Your task to perform on an android device: empty trash in google photos Image 0: 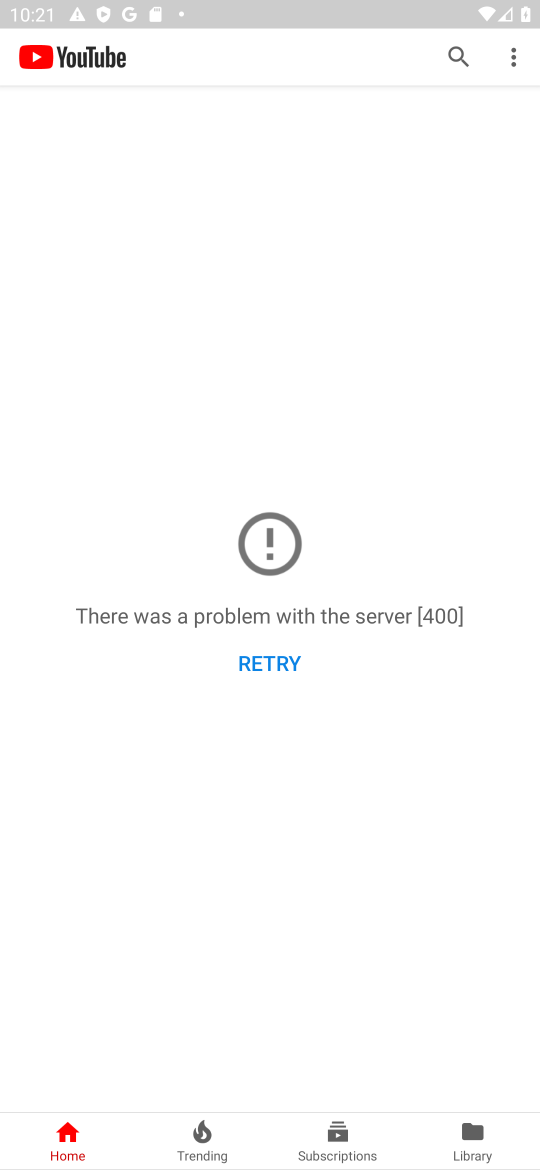
Step 0: press home button
Your task to perform on an android device: empty trash in google photos Image 1: 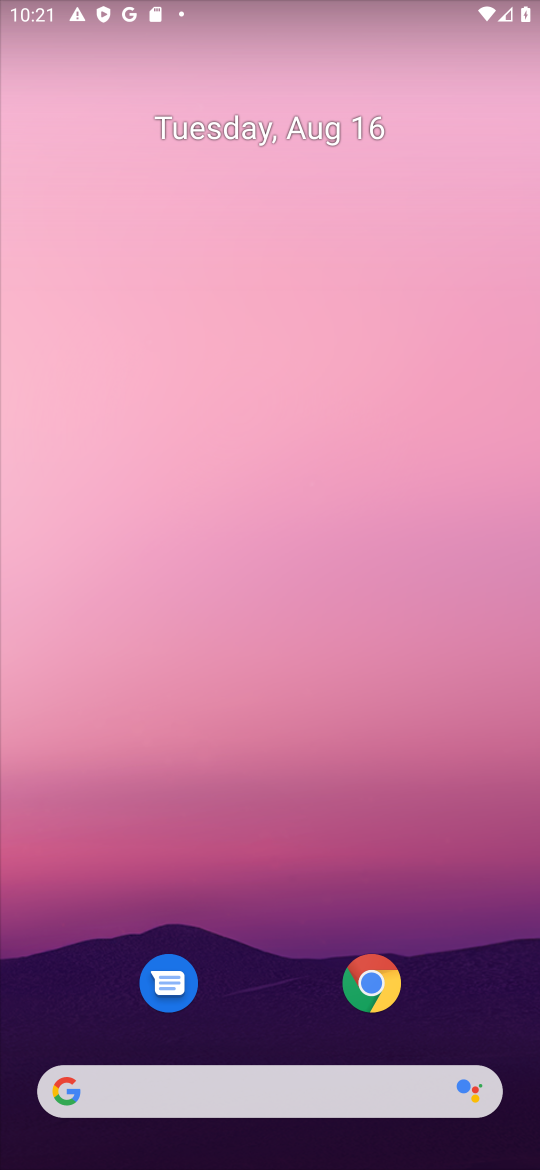
Step 1: drag from (301, 1080) to (262, 541)
Your task to perform on an android device: empty trash in google photos Image 2: 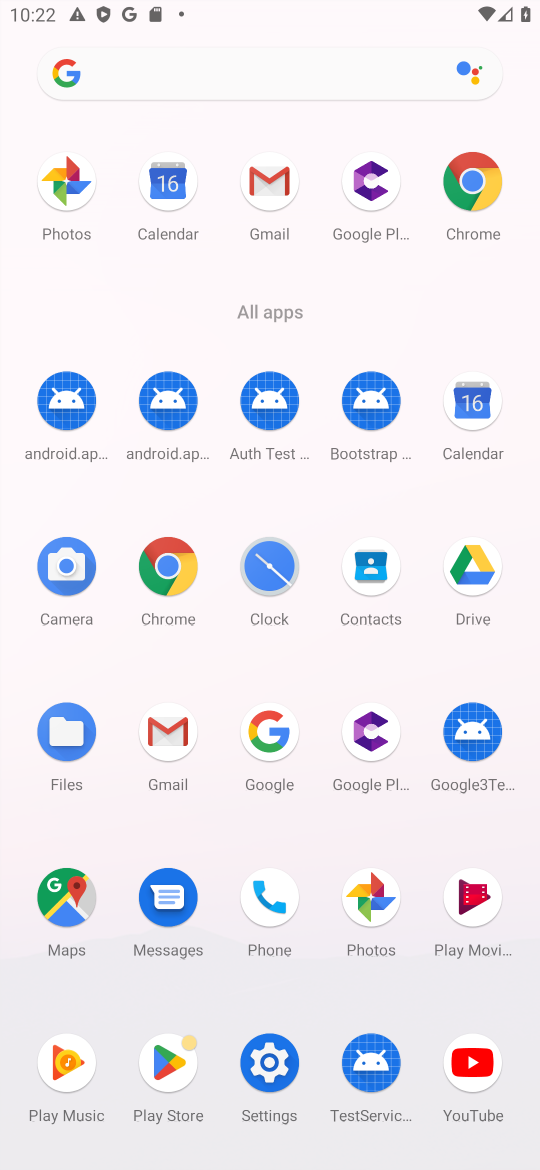
Step 2: click (358, 881)
Your task to perform on an android device: empty trash in google photos Image 3: 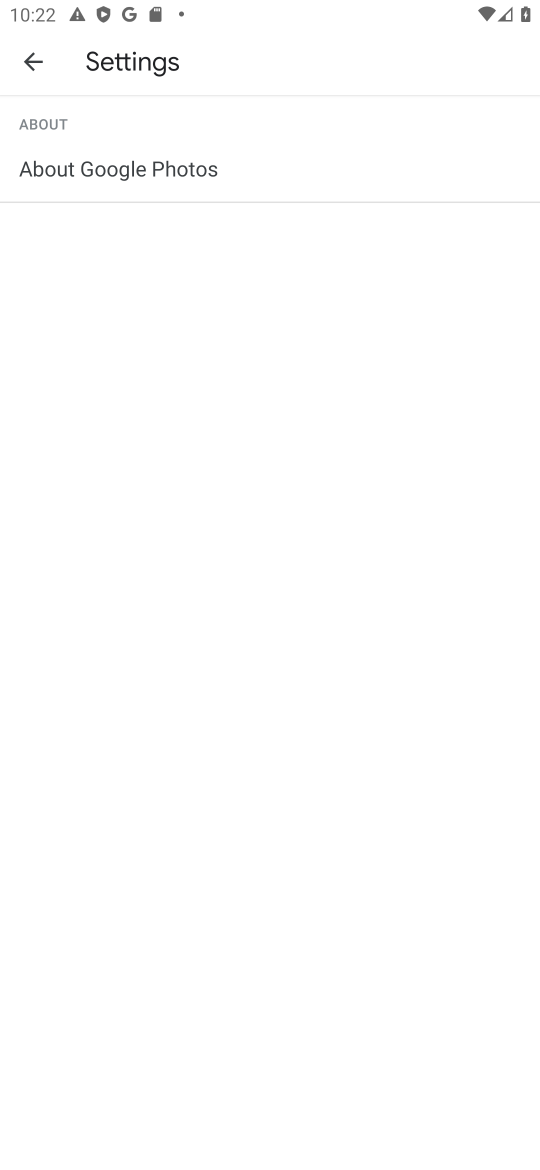
Step 3: click (19, 62)
Your task to perform on an android device: empty trash in google photos Image 4: 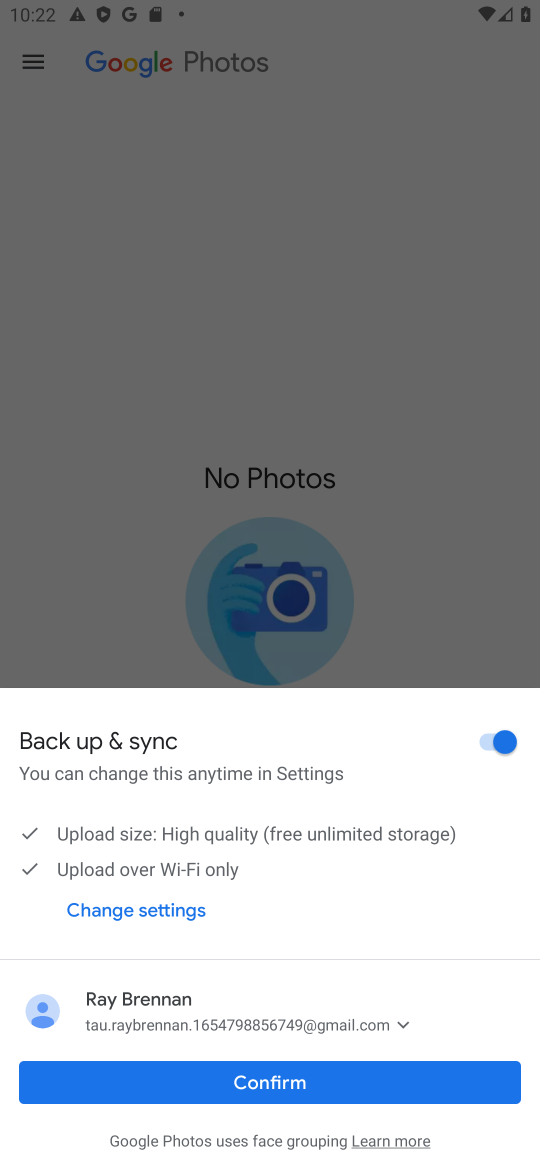
Step 4: click (167, 1088)
Your task to perform on an android device: empty trash in google photos Image 5: 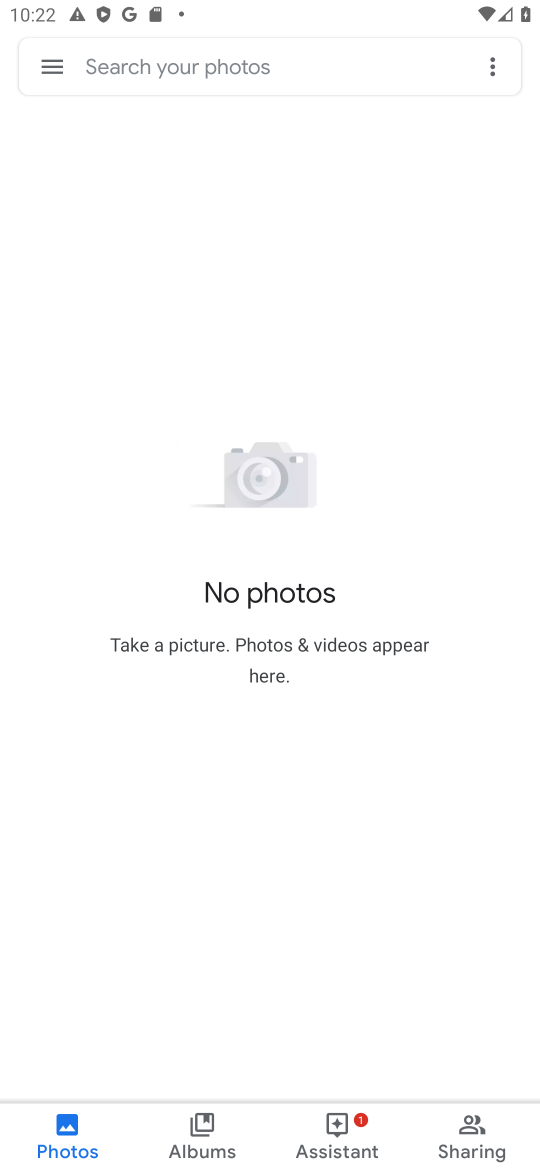
Step 5: click (49, 64)
Your task to perform on an android device: empty trash in google photos Image 6: 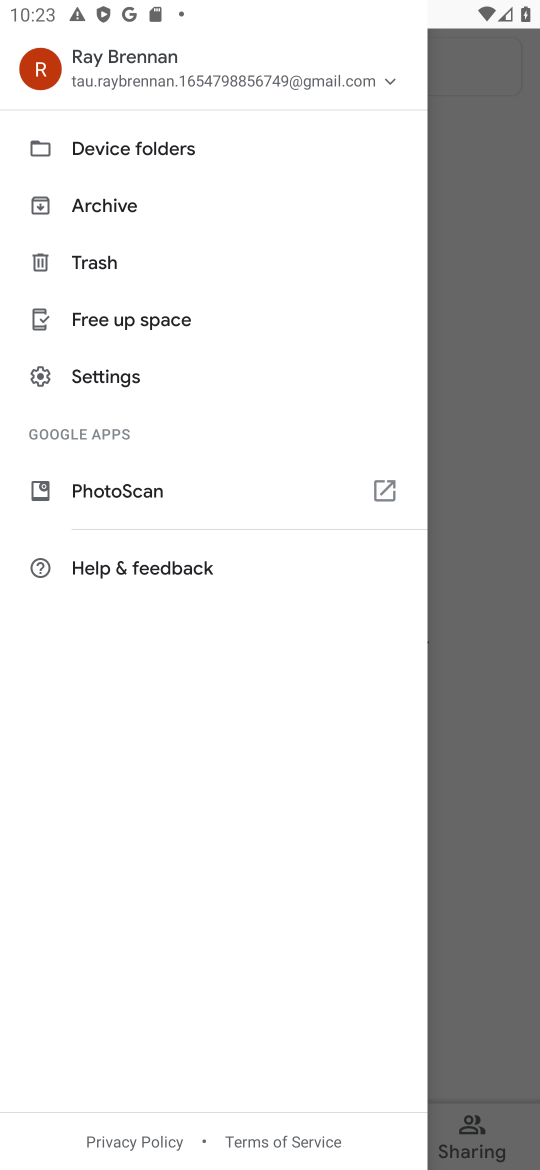
Step 6: click (83, 262)
Your task to perform on an android device: empty trash in google photos Image 7: 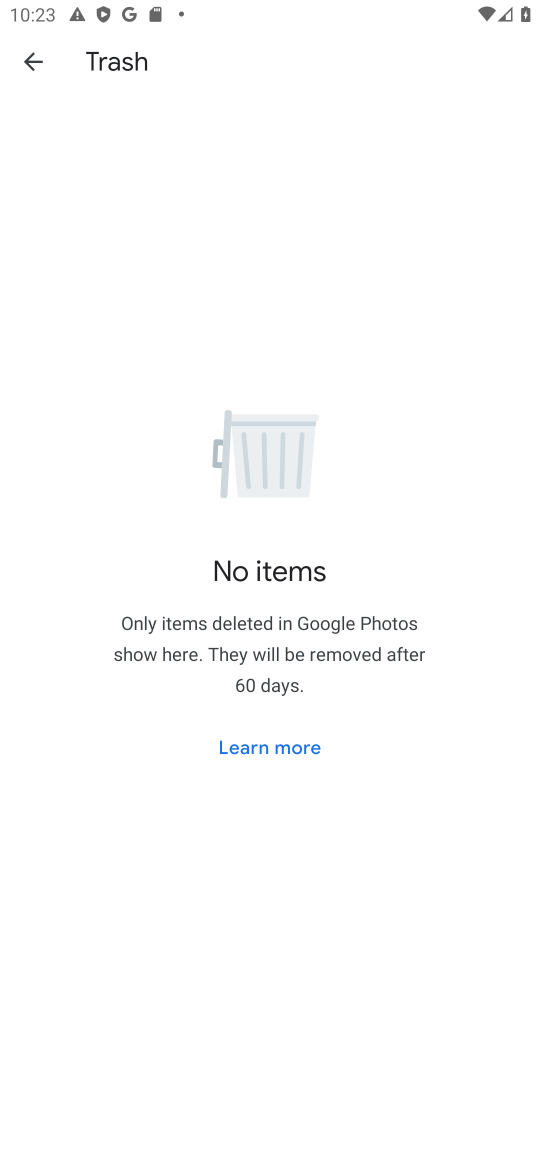
Step 7: task complete